Your task to perform on an android device: Open the calendar and show me this week's events? Image 0: 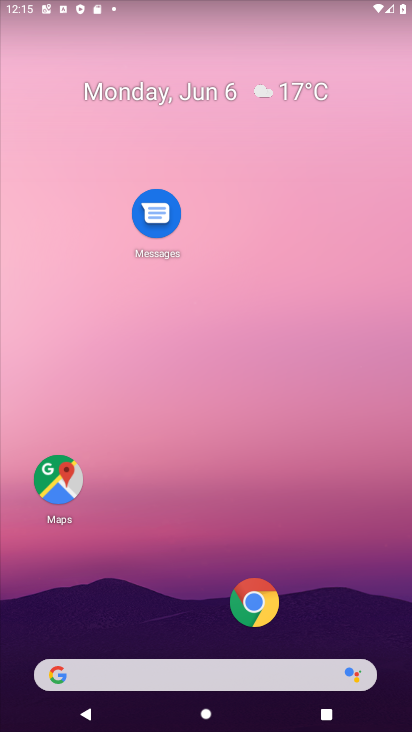
Step 0: drag from (364, 607) to (330, 209)
Your task to perform on an android device: Open the calendar and show me this week's events? Image 1: 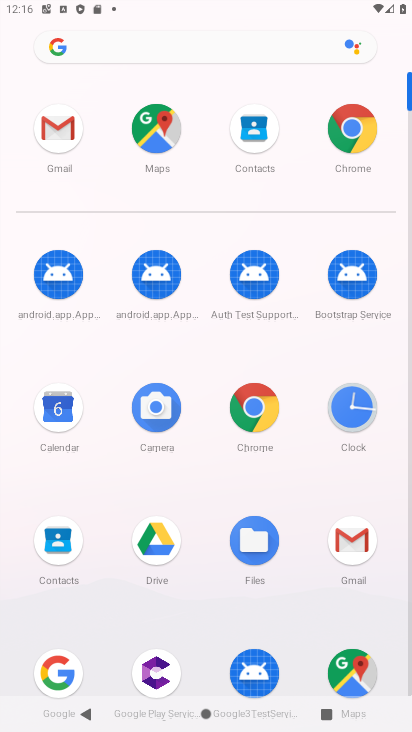
Step 1: click (55, 541)
Your task to perform on an android device: Open the calendar and show me this week's events? Image 2: 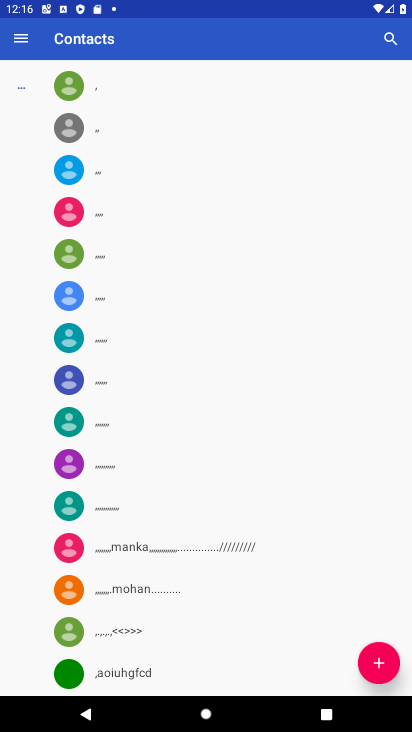
Step 2: task complete